Your task to perform on an android device: Find coffee shops on Maps Image 0: 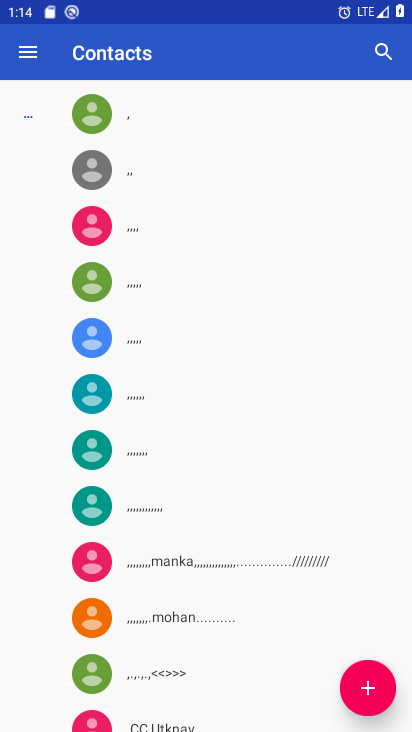
Step 0: press home button
Your task to perform on an android device: Find coffee shops on Maps Image 1: 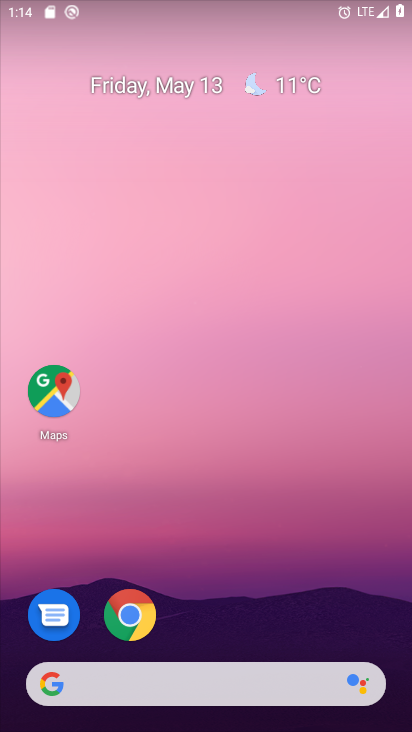
Step 1: click (58, 393)
Your task to perform on an android device: Find coffee shops on Maps Image 2: 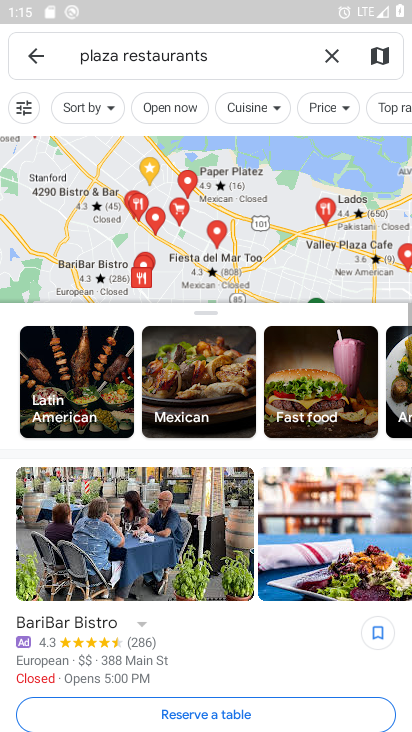
Step 2: click (328, 51)
Your task to perform on an android device: Find coffee shops on Maps Image 3: 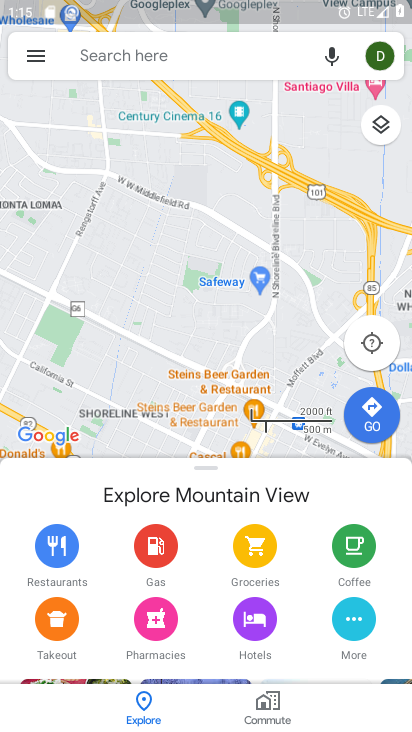
Step 3: click (219, 54)
Your task to perform on an android device: Find coffee shops on Maps Image 4: 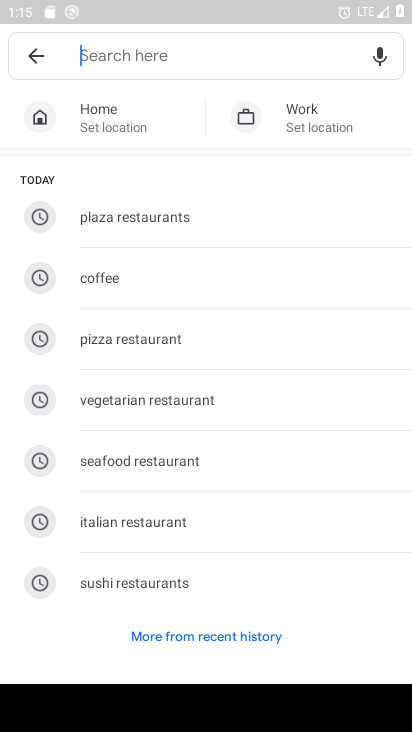
Step 4: click (103, 286)
Your task to perform on an android device: Find coffee shops on Maps Image 5: 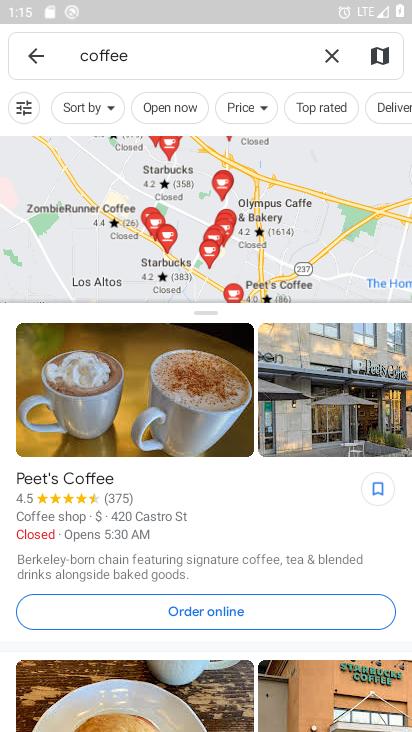
Step 5: task complete